Your task to perform on an android device: turn on showing notifications on the lock screen Image 0: 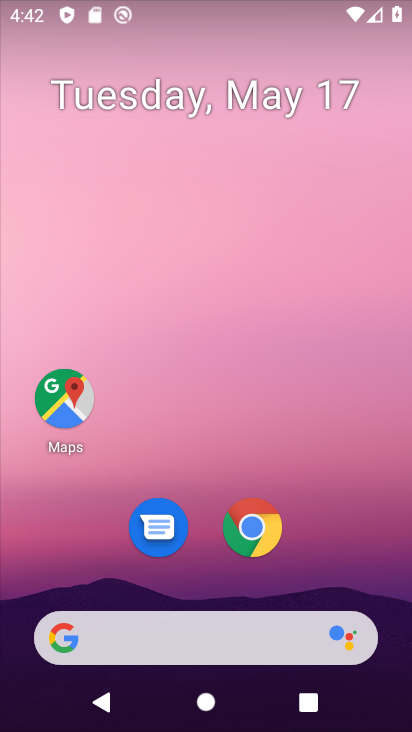
Step 0: drag from (315, 431) to (283, 19)
Your task to perform on an android device: turn on showing notifications on the lock screen Image 1: 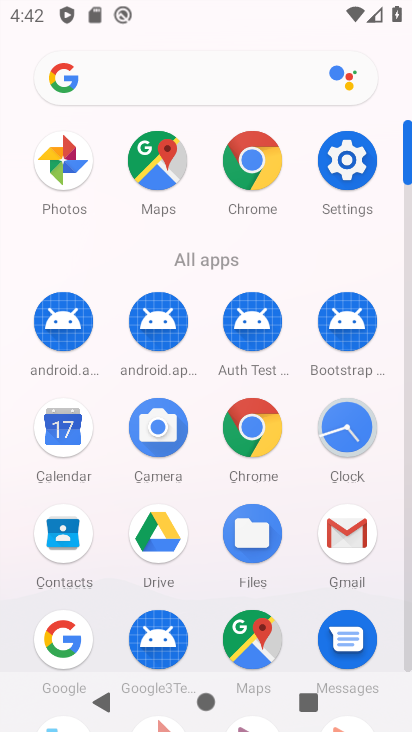
Step 1: drag from (22, 522) to (19, 195)
Your task to perform on an android device: turn on showing notifications on the lock screen Image 2: 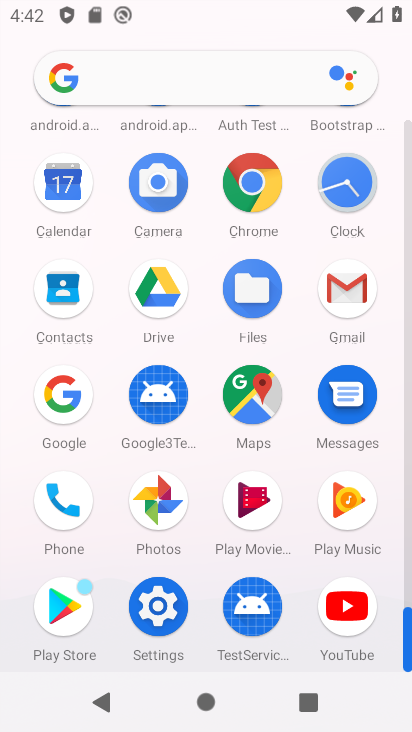
Step 2: click (158, 599)
Your task to perform on an android device: turn on showing notifications on the lock screen Image 3: 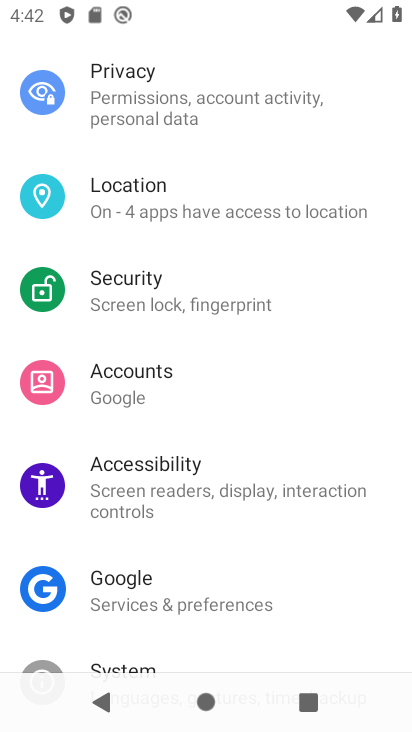
Step 3: drag from (260, 563) to (299, 79)
Your task to perform on an android device: turn on showing notifications on the lock screen Image 4: 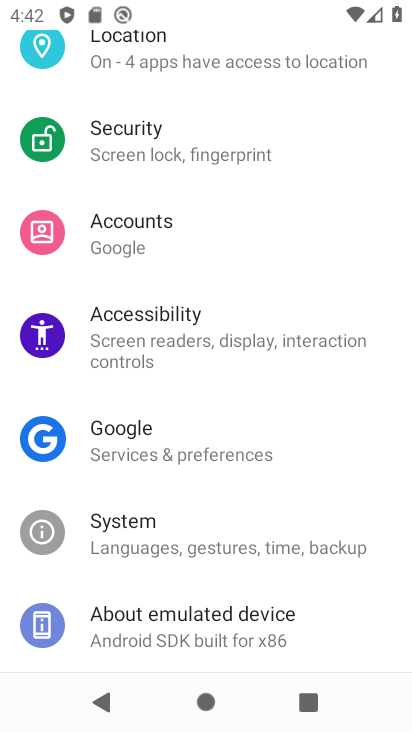
Step 4: drag from (258, 572) to (255, 166)
Your task to perform on an android device: turn on showing notifications on the lock screen Image 5: 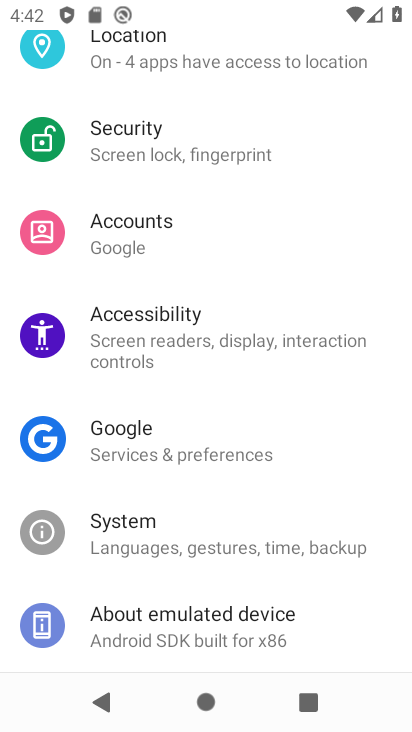
Step 5: drag from (284, 260) to (302, 570)
Your task to perform on an android device: turn on showing notifications on the lock screen Image 6: 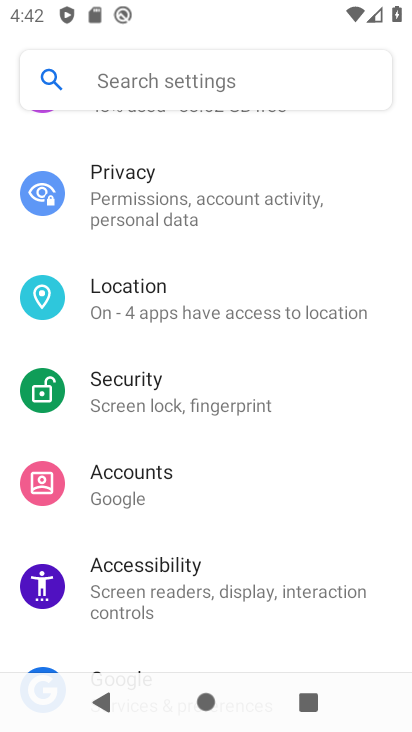
Step 6: drag from (271, 256) to (282, 621)
Your task to perform on an android device: turn on showing notifications on the lock screen Image 7: 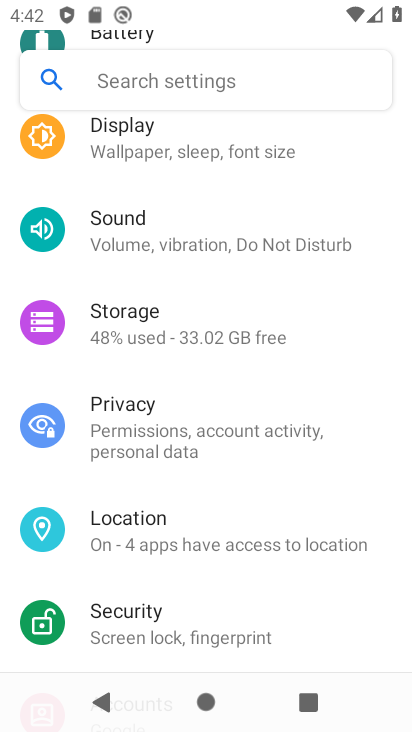
Step 7: drag from (268, 237) to (267, 604)
Your task to perform on an android device: turn on showing notifications on the lock screen Image 8: 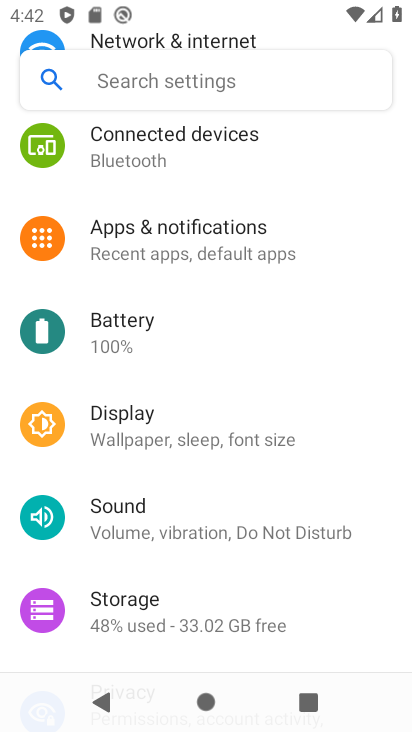
Step 8: click (221, 237)
Your task to perform on an android device: turn on showing notifications on the lock screen Image 9: 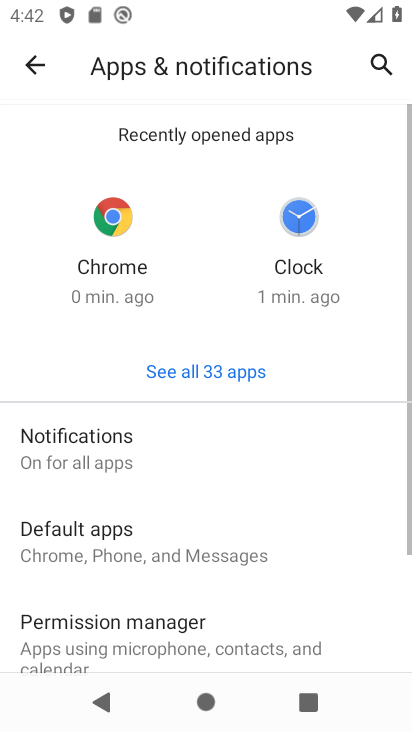
Step 9: click (144, 464)
Your task to perform on an android device: turn on showing notifications on the lock screen Image 10: 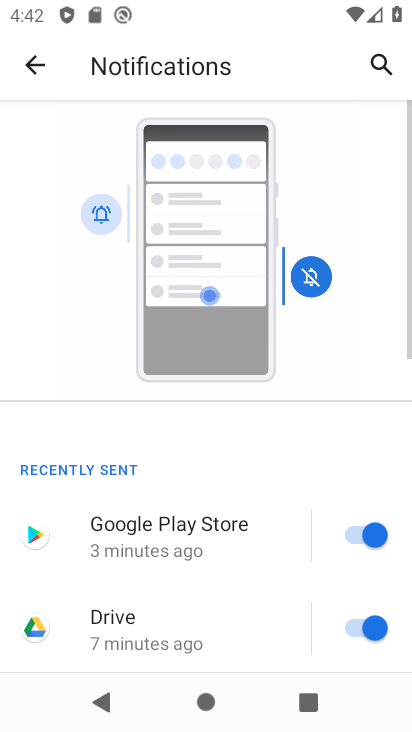
Step 10: drag from (191, 506) to (228, 139)
Your task to perform on an android device: turn on showing notifications on the lock screen Image 11: 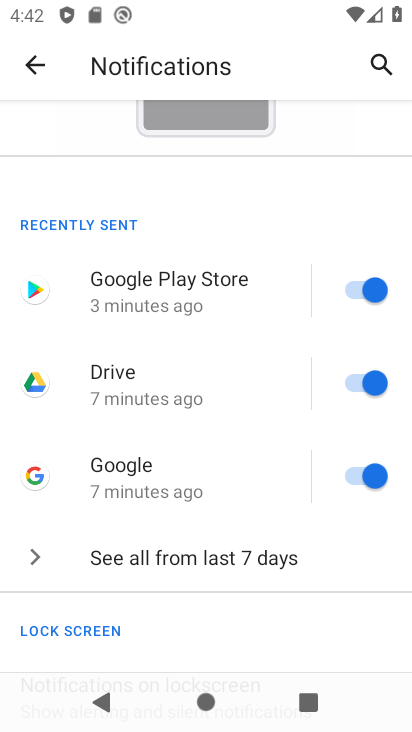
Step 11: drag from (156, 523) to (178, 143)
Your task to perform on an android device: turn on showing notifications on the lock screen Image 12: 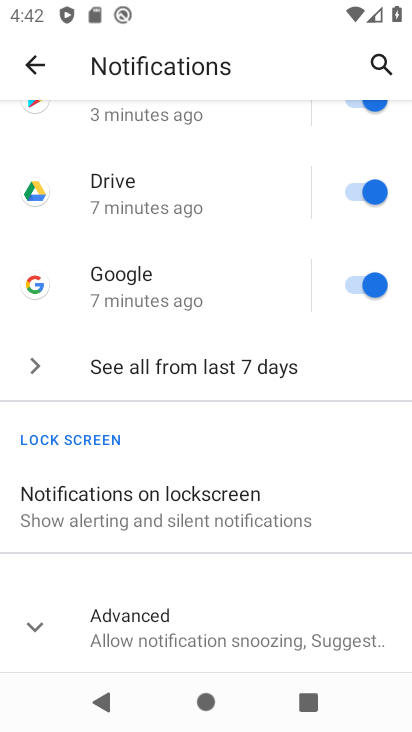
Step 12: click (120, 507)
Your task to perform on an android device: turn on showing notifications on the lock screen Image 13: 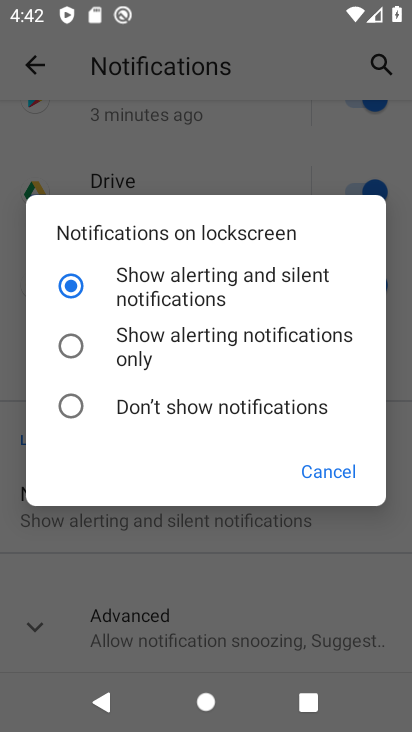
Step 13: click (149, 297)
Your task to perform on an android device: turn on showing notifications on the lock screen Image 14: 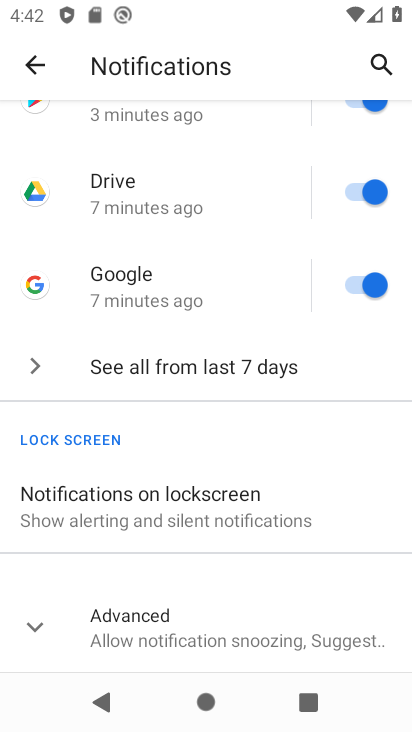
Step 14: drag from (200, 554) to (203, 211)
Your task to perform on an android device: turn on showing notifications on the lock screen Image 15: 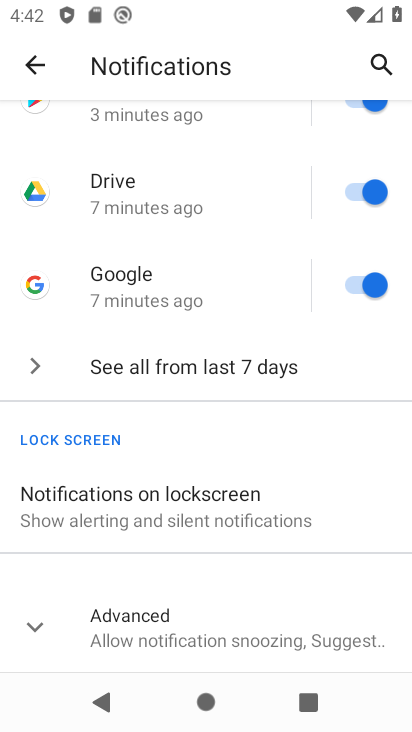
Step 15: drag from (225, 499) to (225, 137)
Your task to perform on an android device: turn on showing notifications on the lock screen Image 16: 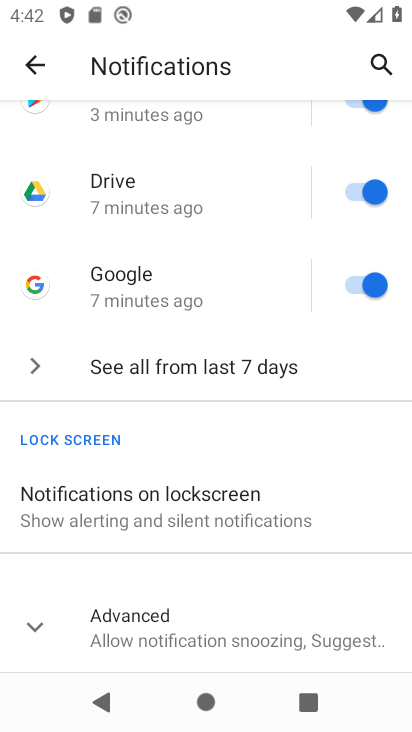
Step 16: click (44, 625)
Your task to perform on an android device: turn on showing notifications on the lock screen Image 17: 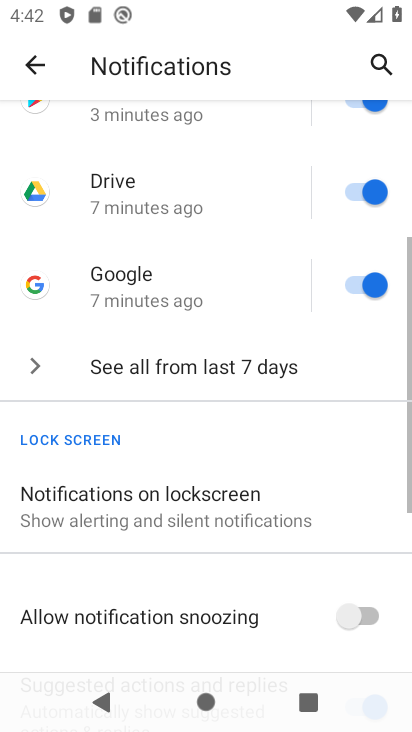
Step 17: drag from (178, 600) to (209, 129)
Your task to perform on an android device: turn on showing notifications on the lock screen Image 18: 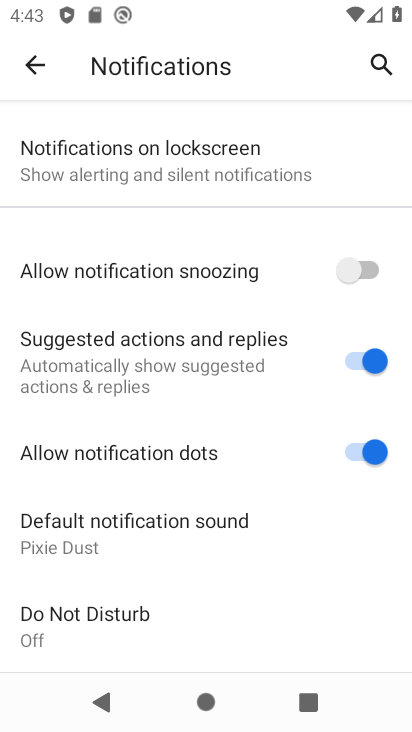
Step 18: drag from (202, 574) to (242, 194)
Your task to perform on an android device: turn on showing notifications on the lock screen Image 19: 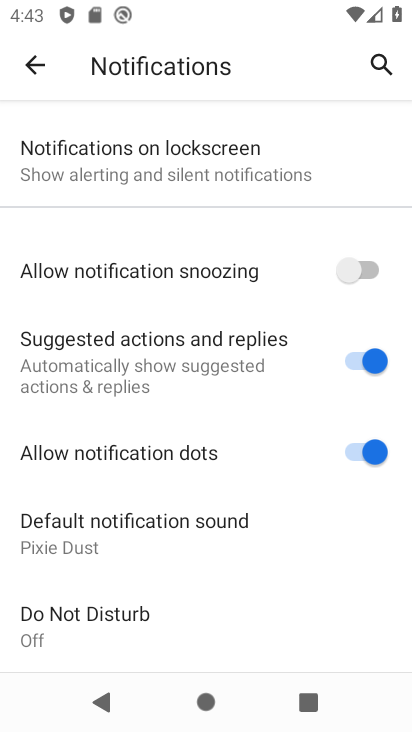
Step 19: drag from (229, 223) to (226, 593)
Your task to perform on an android device: turn on showing notifications on the lock screen Image 20: 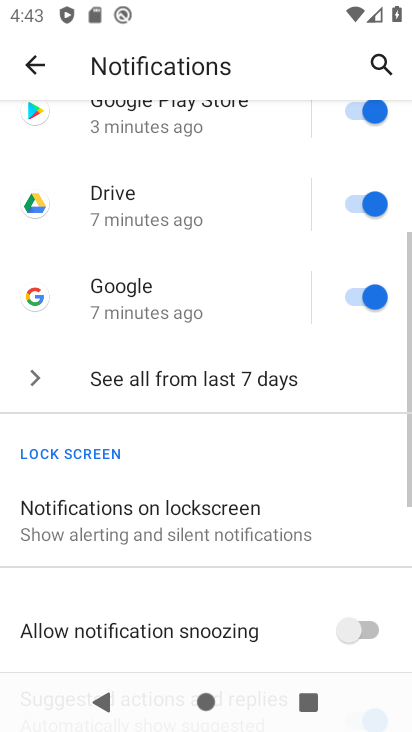
Step 20: click (189, 494)
Your task to perform on an android device: turn on showing notifications on the lock screen Image 21: 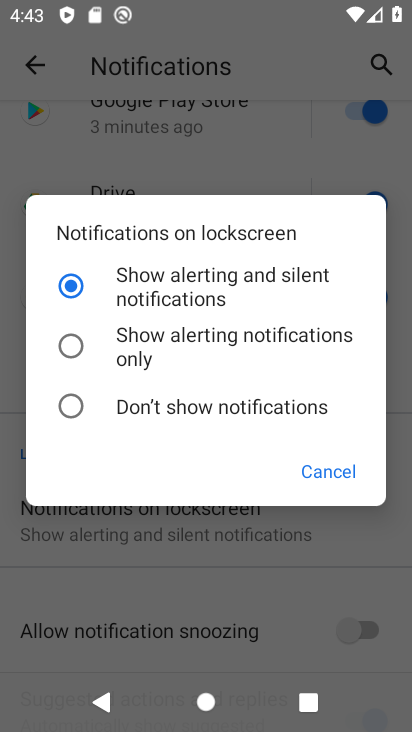
Step 21: click (166, 305)
Your task to perform on an android device: turn on showing notifications on the lock screen Image 22: 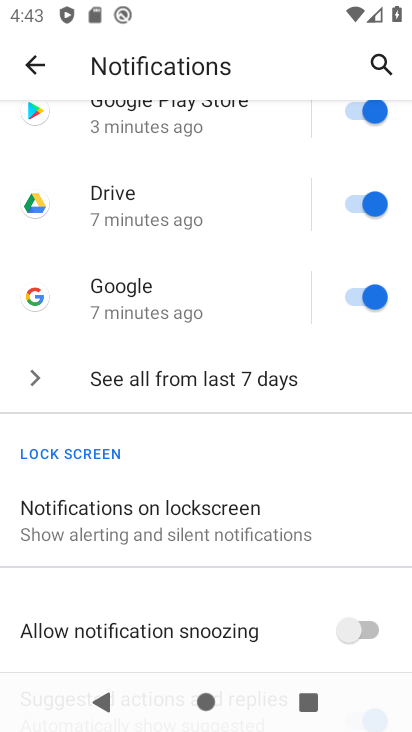
Step 22: task complete